Your task to perform on an android device: turn notification dots off Image 0: 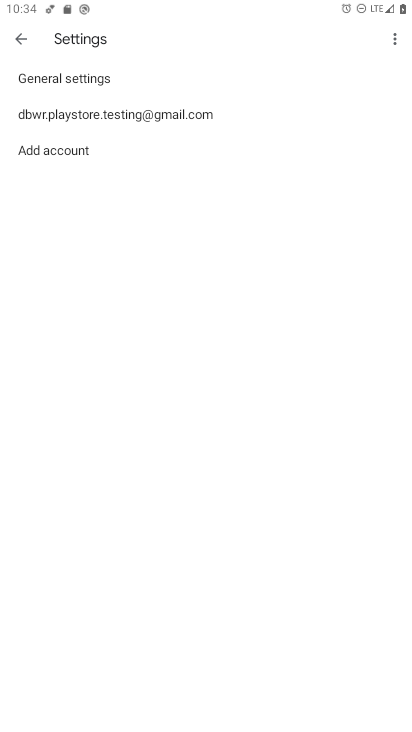
Step 0: press home button
Your task to perform on an android device: turn notification dots off Image 1: 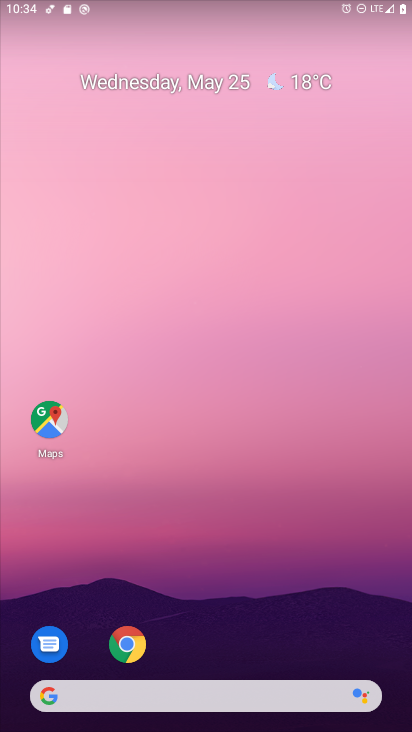
Step 1: drag from (218, 663) to (234, 136)
Your task to perform on an android device: turn notification dots off Image 2: 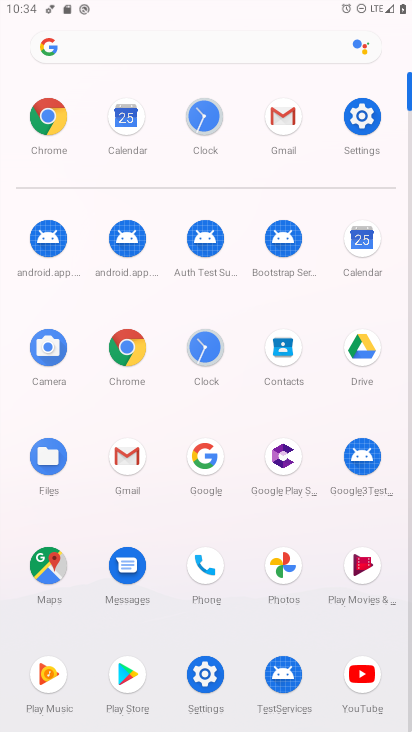
Step 2: click (357, 117)
Your task to perform on an android device: turn notification dots off Image 3: 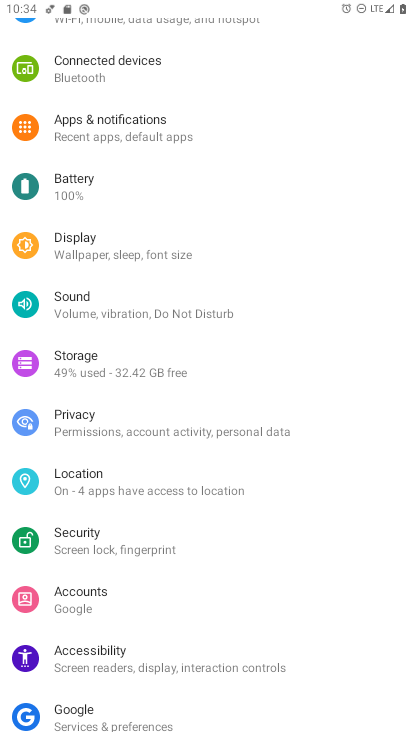
Step 3: click (142, 123)
Your task to perform on an android device: turn notification dots off Image 4: 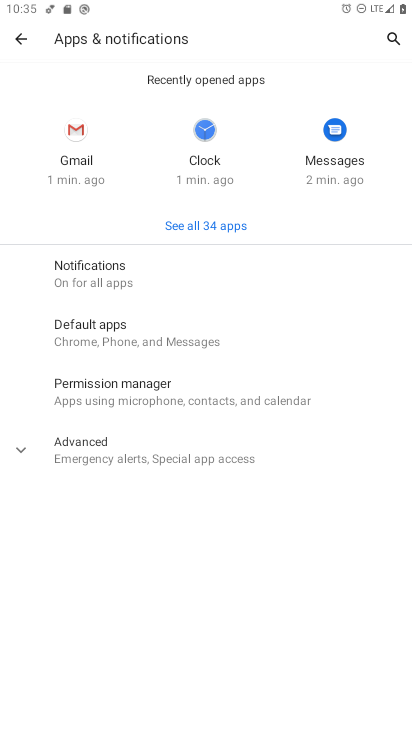
Step 4: click (153, 268)
Your task to perform on an android device: turn notification dots off Image 5: 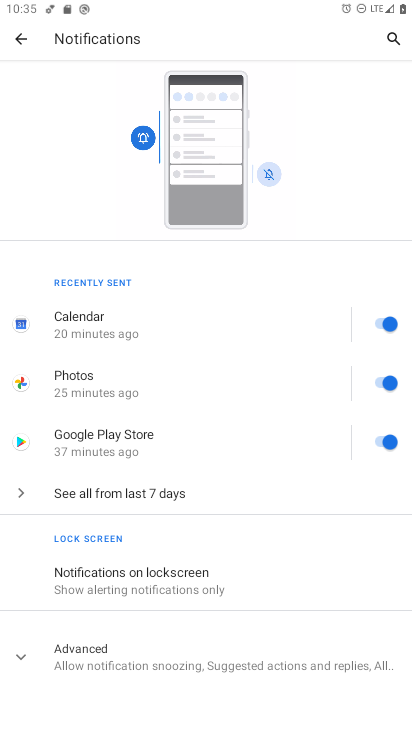
Step 5: click (175, 586)
Your task to perform on an android device: turn notification dots off Image 6: 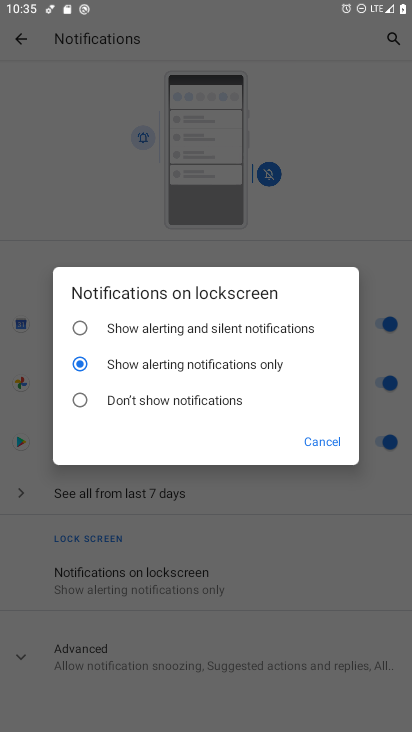
Step 6: click (158, 512)
Your task to perform on an android device: turn notification dots off Image 7: 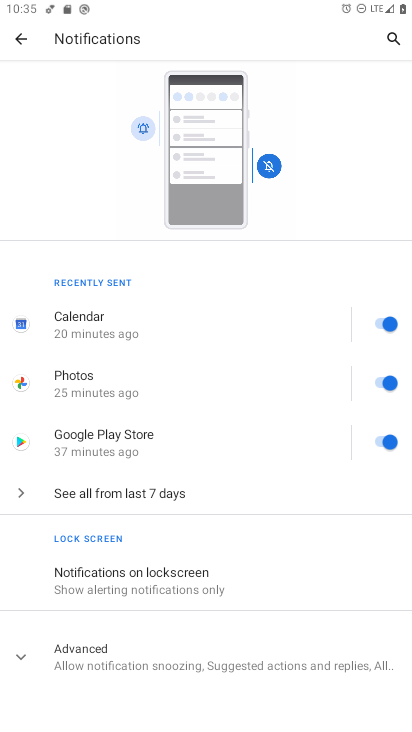
Step 7: click (56, 651)
Your task to perform on an android device: turn notification dots off Image 8: 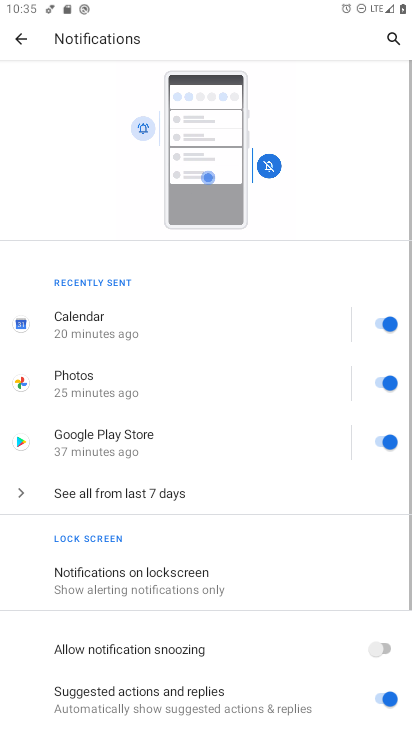
Step 8: drag from (225, 640) to (224, 214)
Your task to perform on an android device: turn notification dots off Image 9: 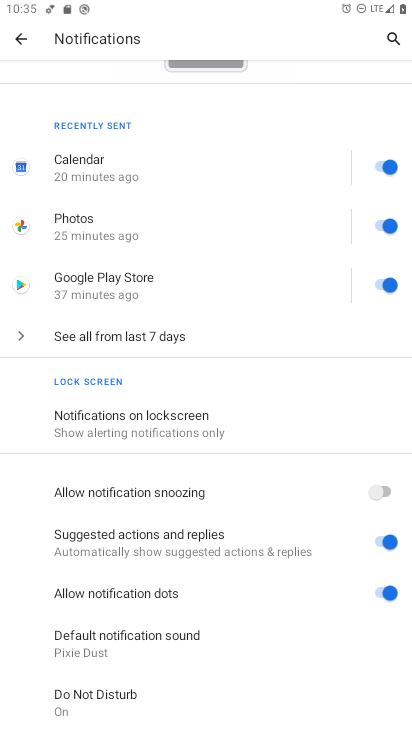
Step 9: click (381, 590)
Your task to perform on an android device: turn notification dots off Image 10: 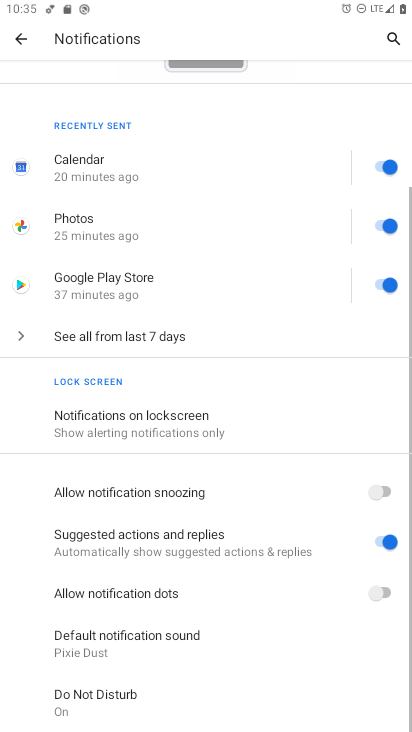
Step 10: task complete